Your task to perform on an android device: Open Wikipedia Image 0: 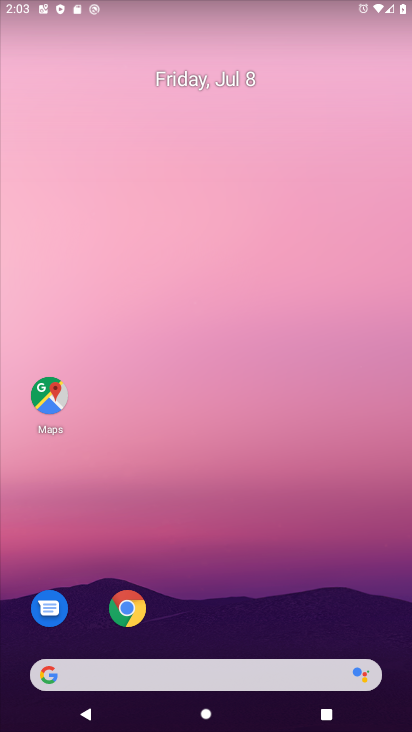
Step 0: click (131, 601)
Your task to perform on an android device: Open Wikipedia Image 1: 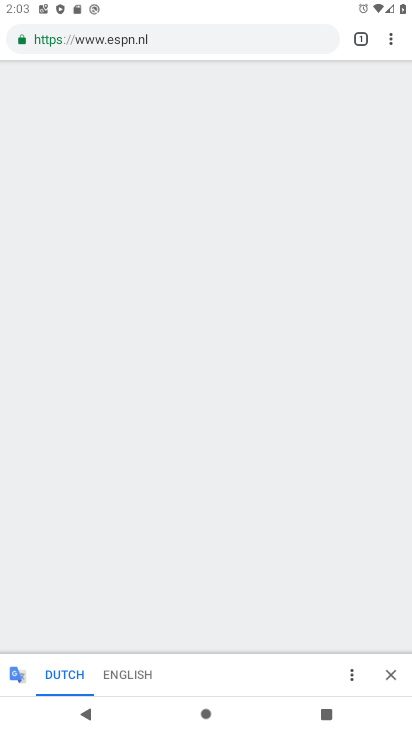
Step 1: click (359, 42)
Your task to perform on an android device: Open Wikipedia Image 2: 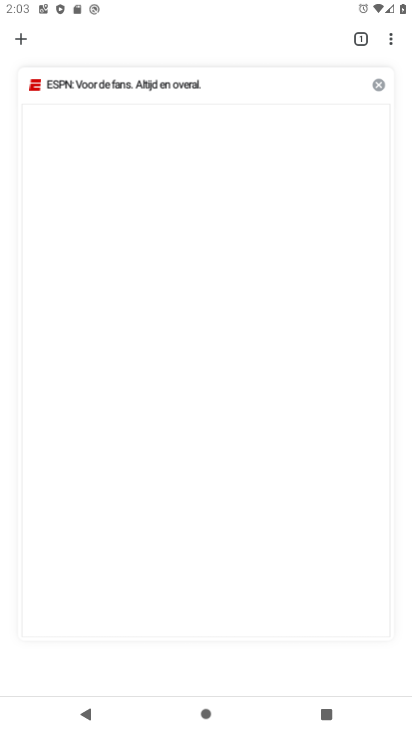
Step 2: click (28, 38)
Your task to perform on an android device: Open Wikipedia Image 3: 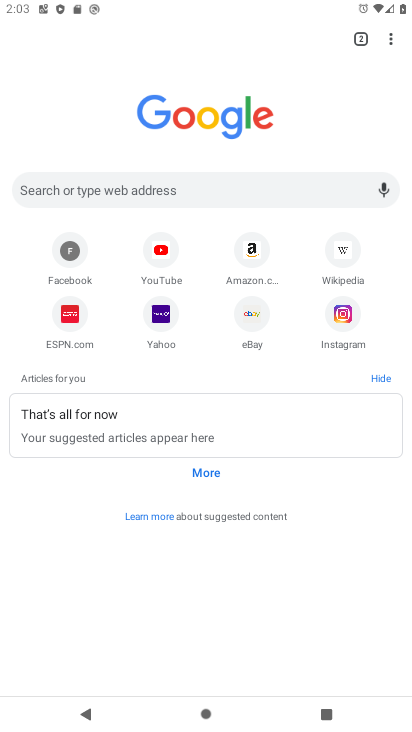
Step 3: click (340, 244)
Your task to perform on an android device: Open Wikipedia Image 4: 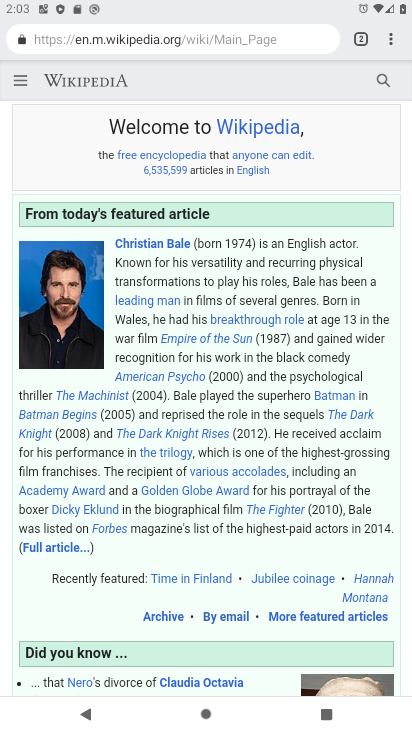
Step 4: task complete